Your task to perform on an android device: change alarm snooze length Image 0: 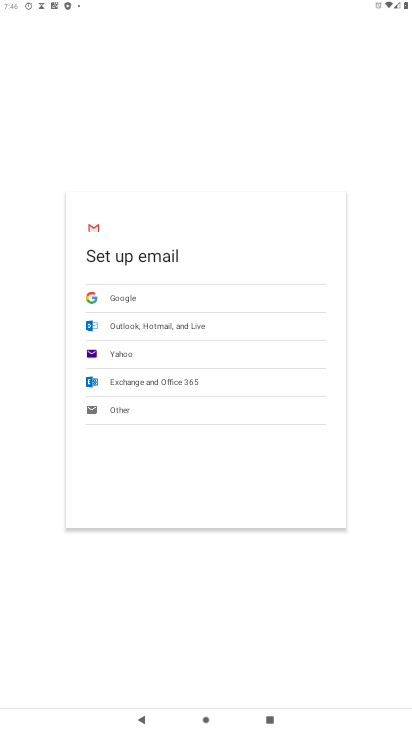
Step 0: press home button
Your task to perform on an android device: change alarm snooze length Image 1: 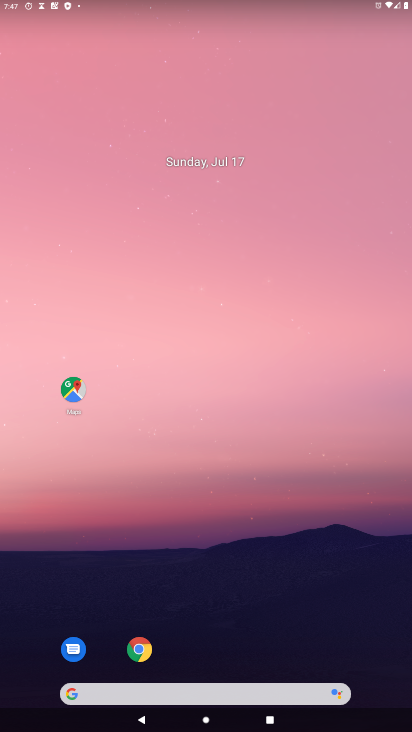
Step 1: drag from (226, 666) to (240, 61)
Your task to perform on an android device: change alarm snooze length Image 2: 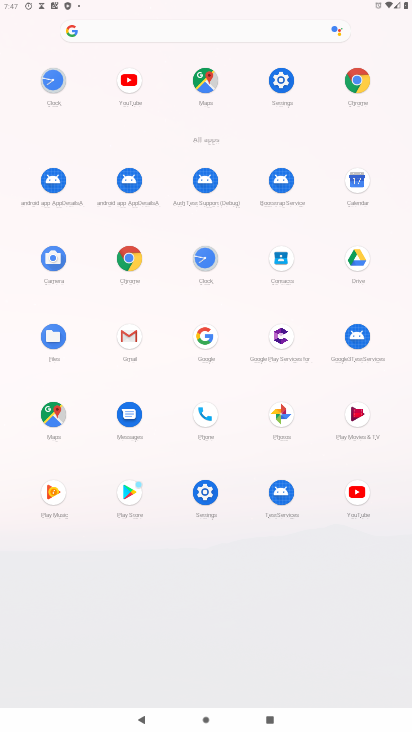
Step 2: click (211, 264)
Your task to perform on an android device: change alarm snooze length Image 3: 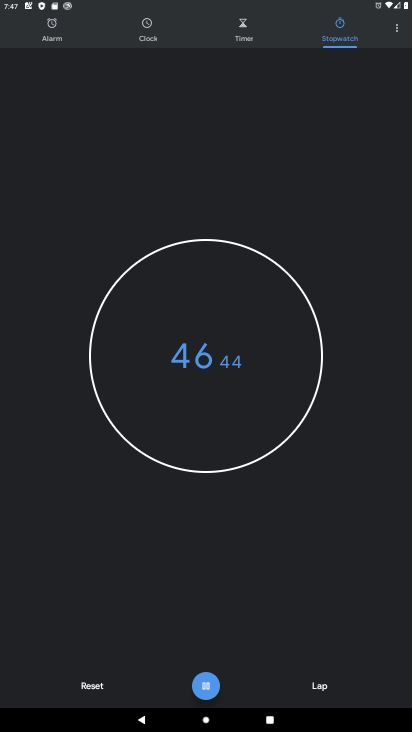
Step 3: click (388, 28)
Your task to perform on an android device: change alarm snooze length Image 4: 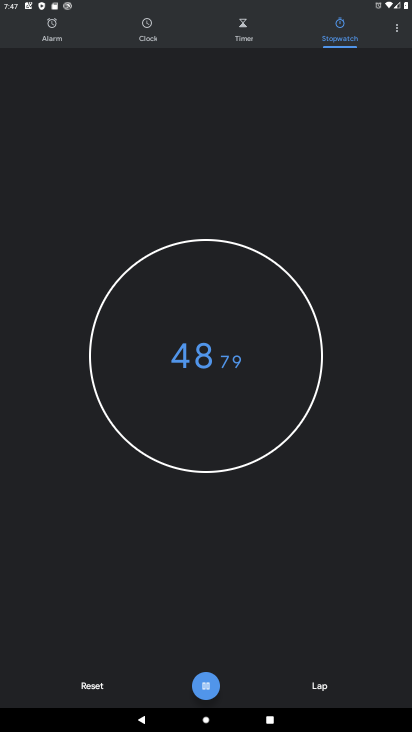
Step 4: click (392, 29)
Your task to perform on an android device: change alarm snooze length Image 5: 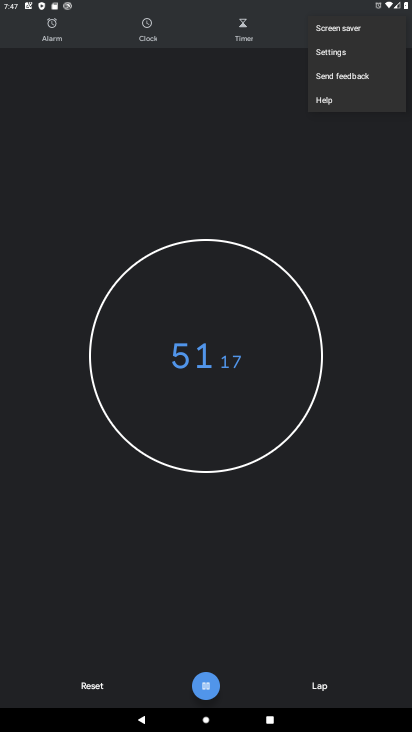
Step 5: click (343, 54)
Your task to perform on an android device: change alarm snooze length Image 6: 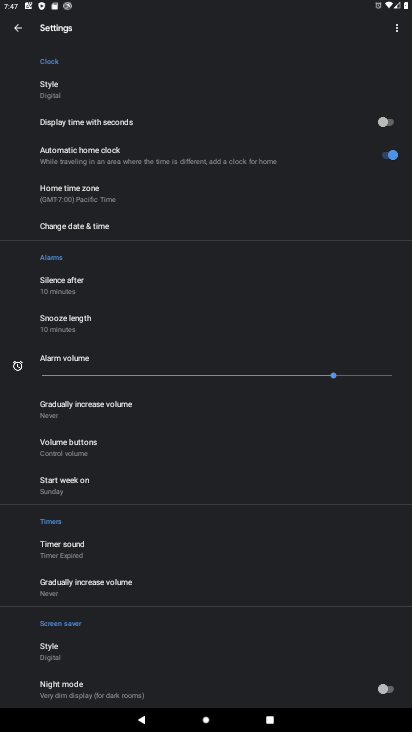
Step 6: click (74, 324)
Your task to perform on an android device: change alarm snooze length Image 7: 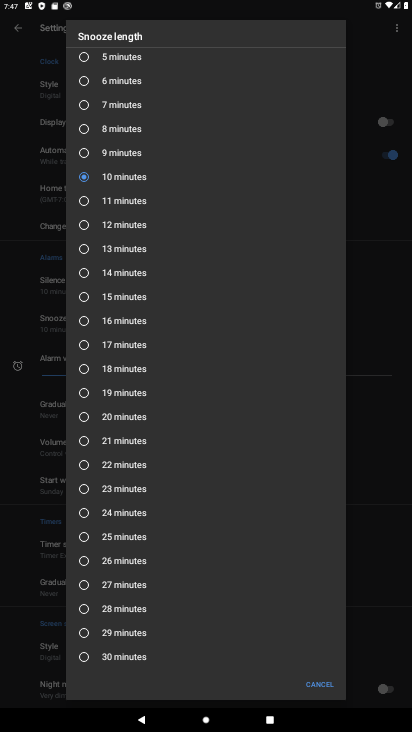
Step 7: click (100, 285)
Your task to perform on an android device: change alarm snooze length Image 8: 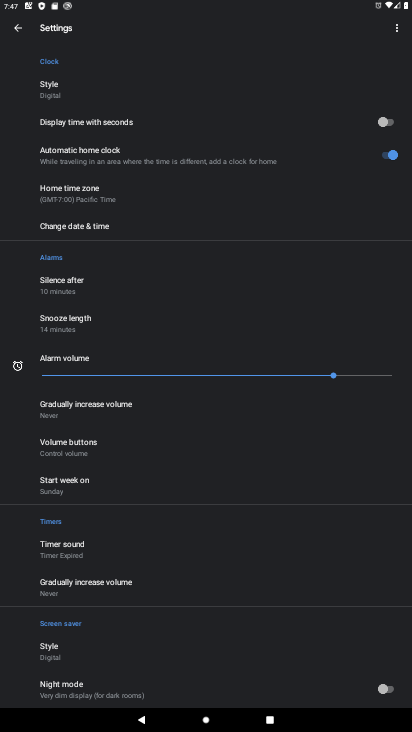
Step 8: task complete